Your task to perform on an android device: turn on bluetooth scan Image 0: 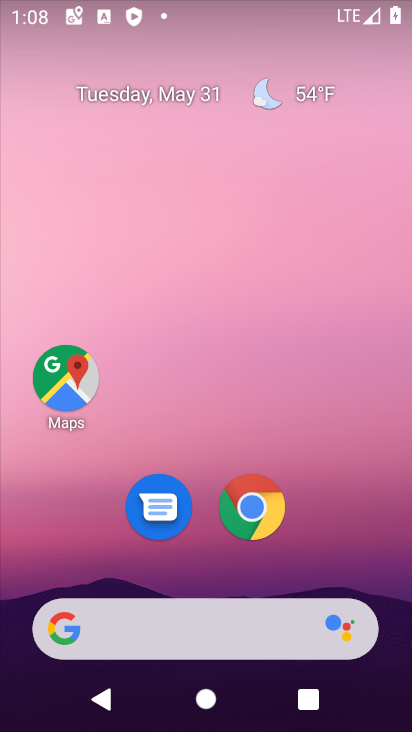
Step 0: drag from (389, 644) to (274, 41)
Your task to perform on an android device: turn on bluetooth scan Image 1: 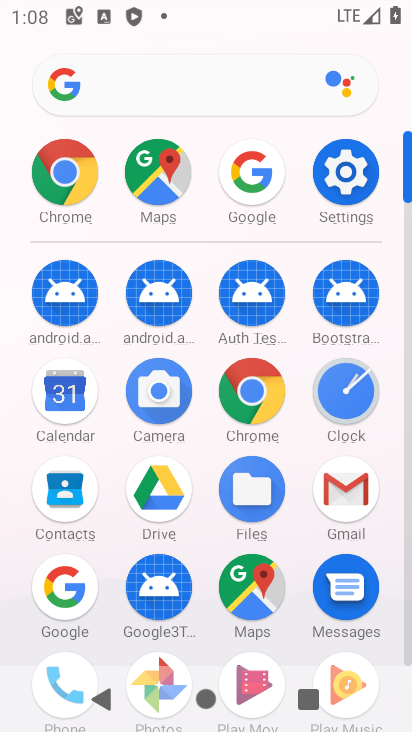
Step 1: click (357, 165)
Your task to perform on an android device: turn on bluetooth scan Image 2: 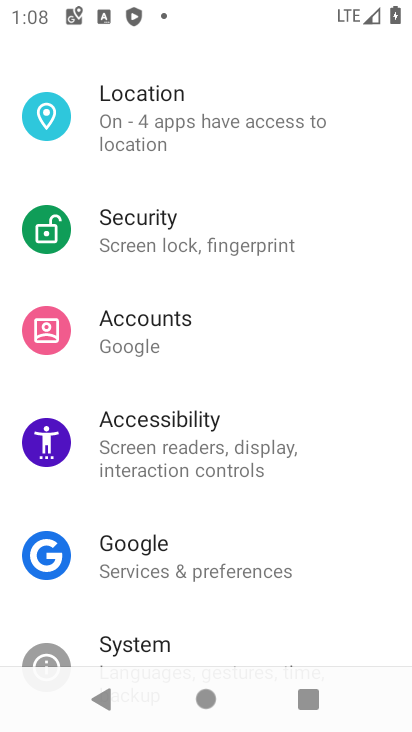
Step 2: click (152, 122)
Your task to perform on an android device: turn on bluetooth scan Image 3: 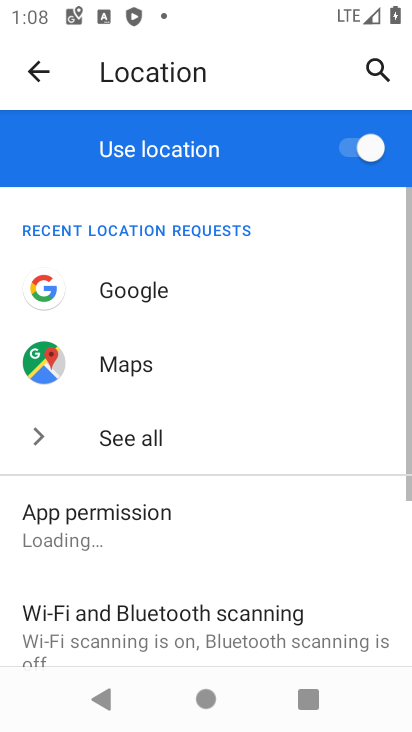
Step 3: click (169, 619)
Your task to perform on an android device: turn on bluetooth scan Image 4: 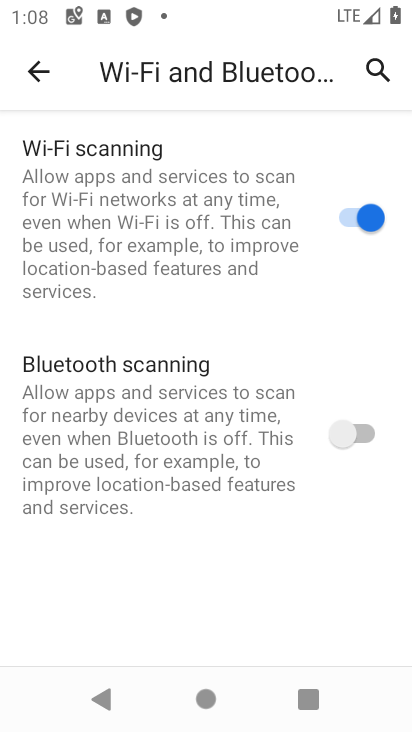
Step 4: click (331, 444)
Your task to perform on an android device: turn on bluetooth scan Image 5: 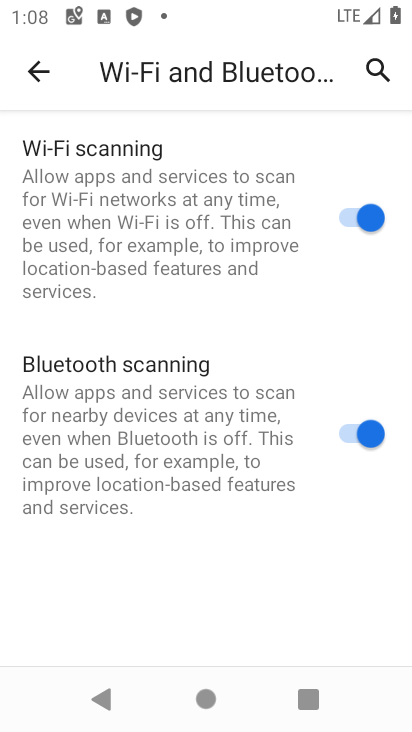
Step 5: task complete